Your task to perform on an android device: turn notification dots off Image 0: 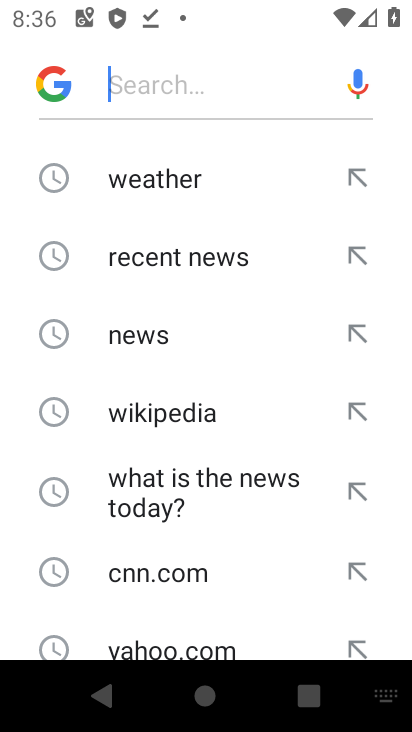
Step 0: press back button
Your task to perform on an android device: turn notification dots off Image 1: 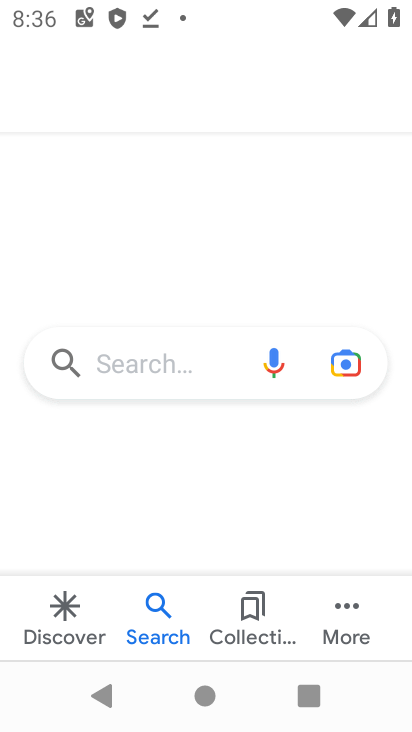
Step 1: press home button
Your task to perform on an android device: turn notification dots off Image 2: 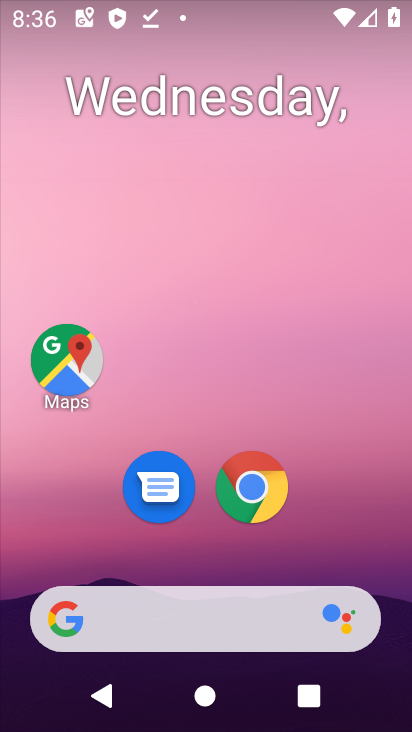
Step 2: drag from (230, 579) to (165, 273)
Your task to perform on an android device: turn notification dots off Image 3: 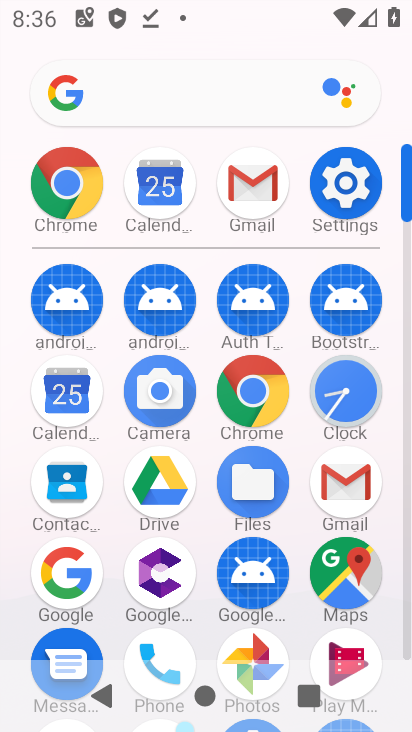
Step 3: click (342, 183)
Your task to perform on an android device: turn notification dots off Image 4: 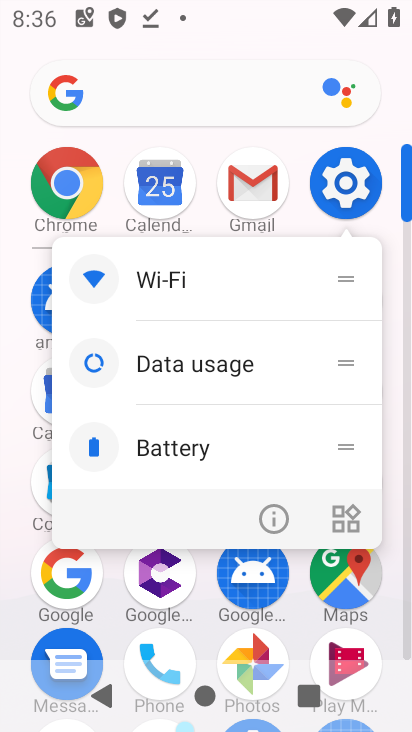
Step 4: click (340, 188)
Your task to perform on an android device: turn notification dots off Image 5: 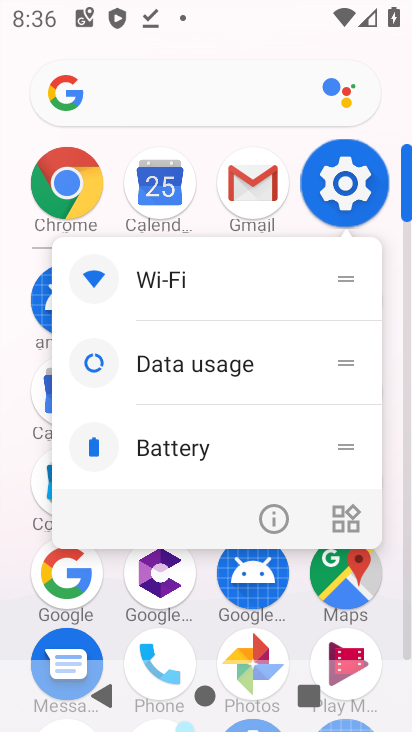
Step 5: click (340, 188)
Your task to perform on an android device: turn notification dots off Image 6: 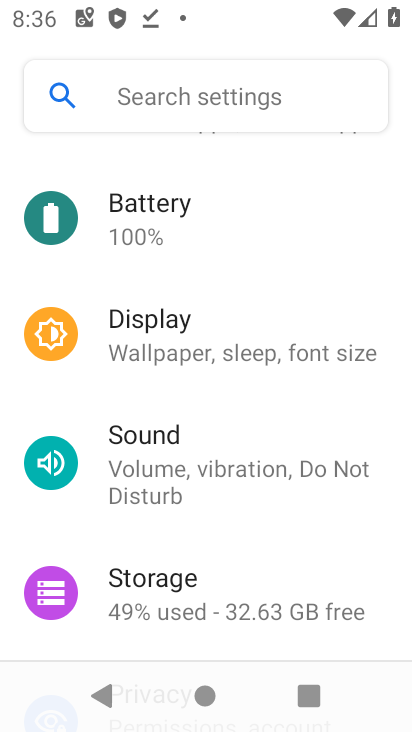
Step 6: drag from (172, 472) to (246, 276)
Your task to perform on an android device: turn notification dots off Image 7: 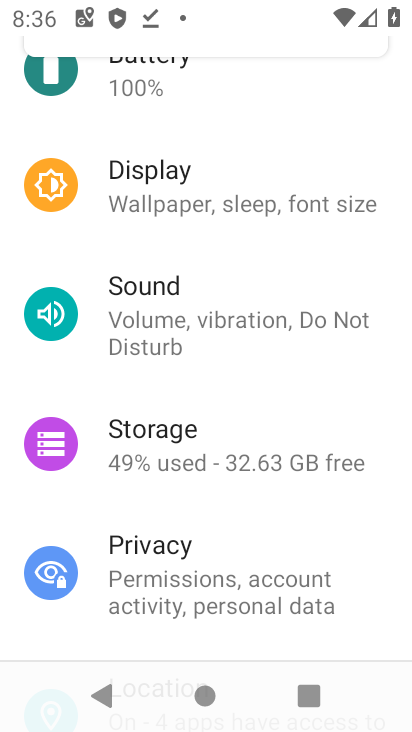
Step 7: drag from (151, 543) to (187, 545)
Your task to perform on an android device: turn notification dots off Image 8: 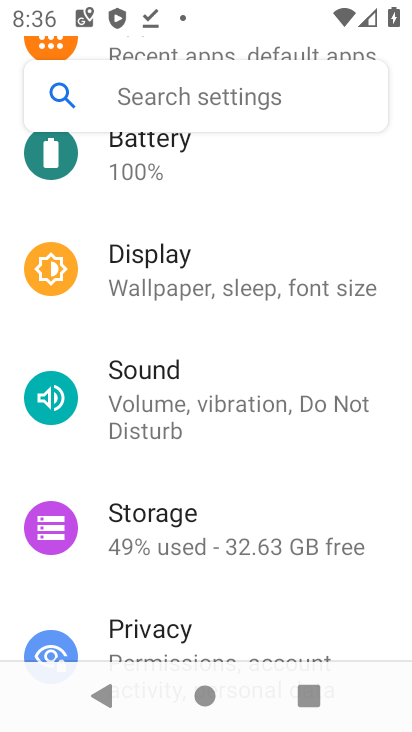
Step 8: drag from (237, 238) to (241, 544)
Your task to perform on an android device: turn notification dots off Image 9: 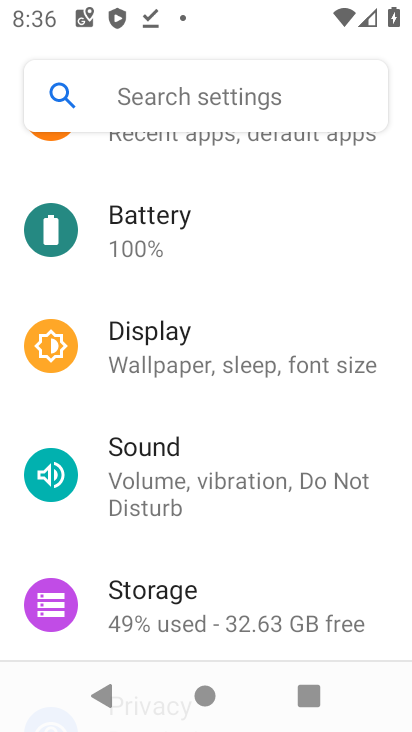
Step 9: drag from (170, 261) to (143, 621)
Your task to perform on an android device: turn notification dots off Image 10: 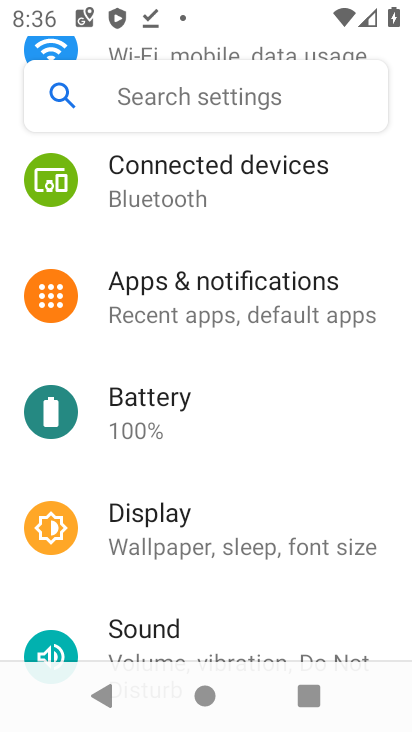
Step 10: drag from (142, 374) to (56, 705)
Your task to perform on an android device: turn notification dots off Image 11: 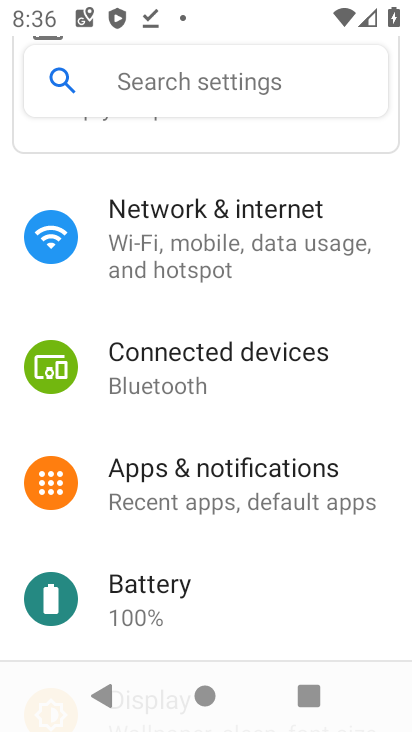
Step 11: click (224, 490)
Your task to perform on an android device: turn notification dots off Image 12: 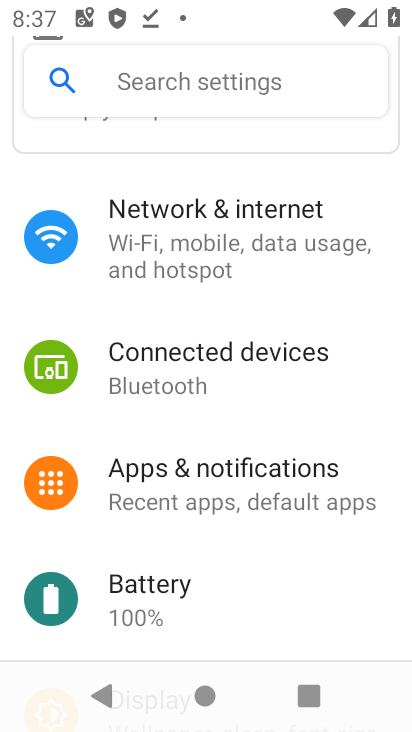
Step 12: click (224, 490)
Your task to perform on an android device: turn notification dots off Image 13: 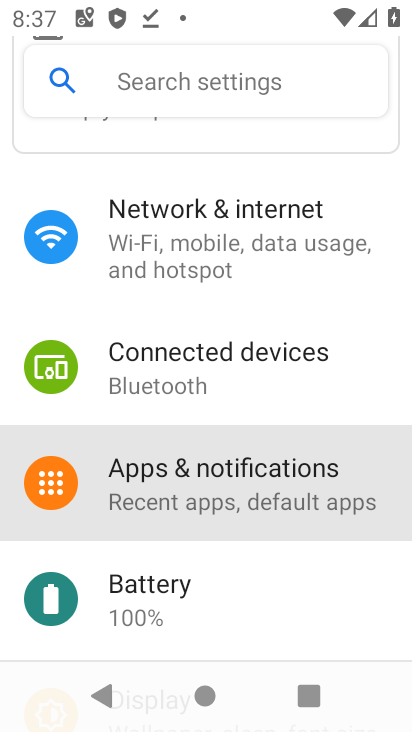
Step 13: click (225, 491)
Your task to perform on an android device: turn notification dots off Image 14: 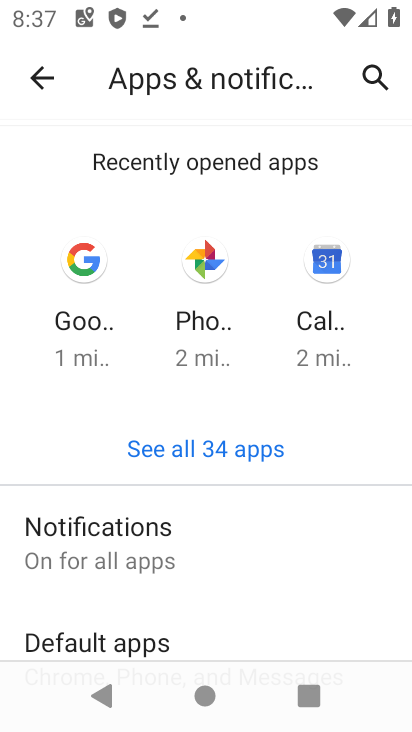
Step 14: click (128, 529)
Your task to perform on an android device: turn notification dots off Image 15: 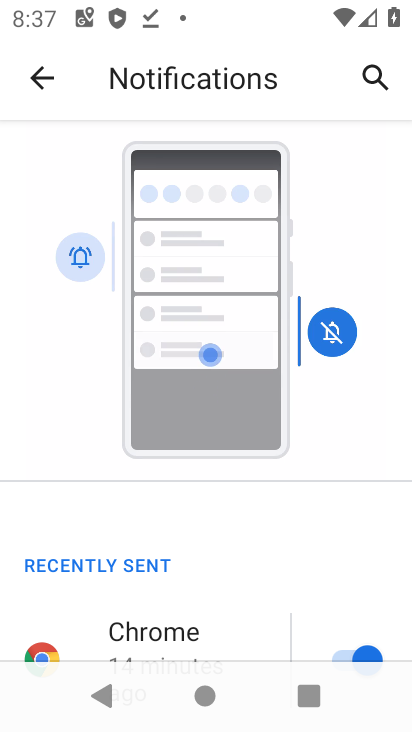
Step 15: drag from (254, 610) to (232, 137)
Your task to perform on an android device: turn notification dots off Image 16: 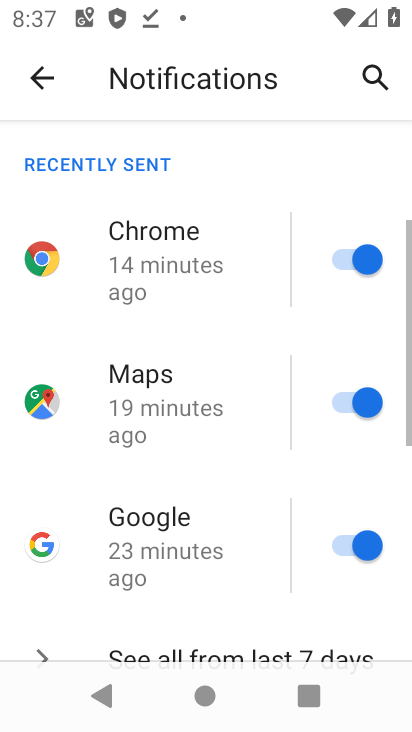
Step 16: drag from (210, 407) to (226, 39)
Your task to perform on an android device: turn notification dots off Image 17: 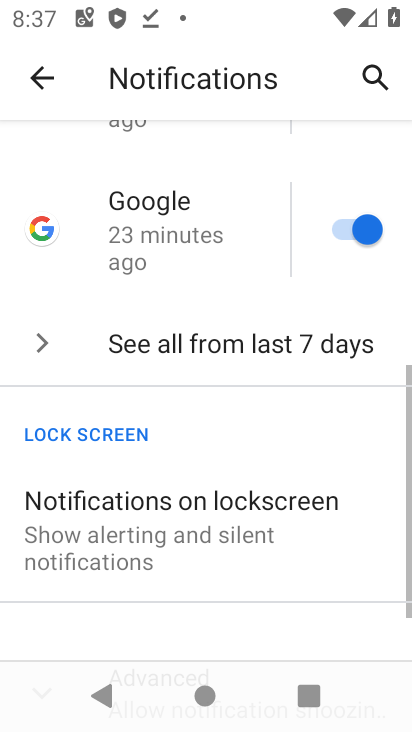
Step 17: drag from (203, 397) to (177, 174)
Your task to perform on an android device: turn notification dots off Image 18: 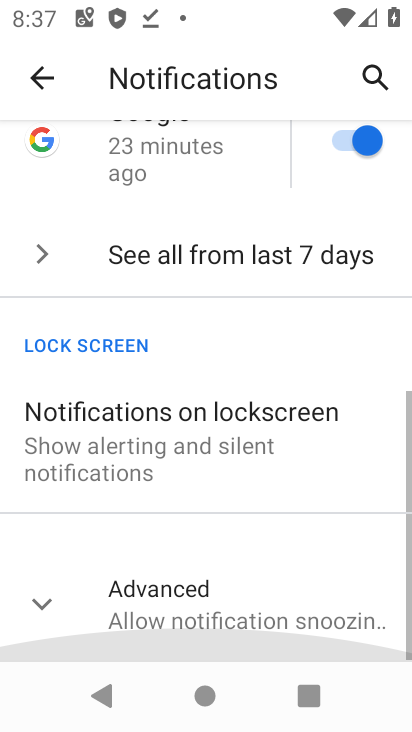
Step 18: drag from (185, 398) to (171, 302)
Your task to perform on an android device: turn notification dots off Image 19: 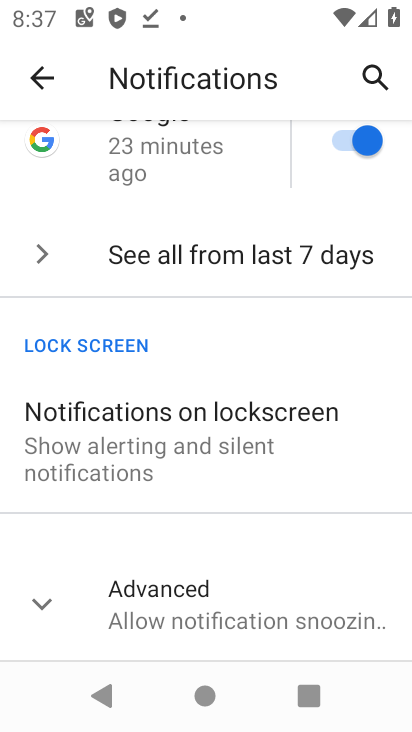
Step 19: click (187, 609)
Your task to perform on an android device: turn notification dots off Image 20: 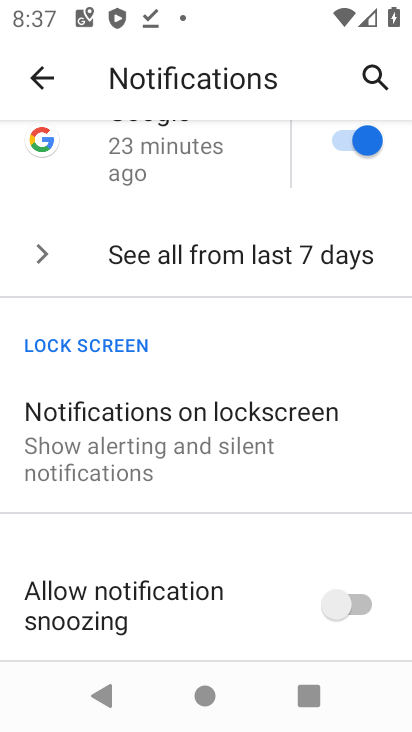
Step 20: drag from (173, 267) to (168, 207)
Your task to perform on an android device: turn notification dots off Image 21: 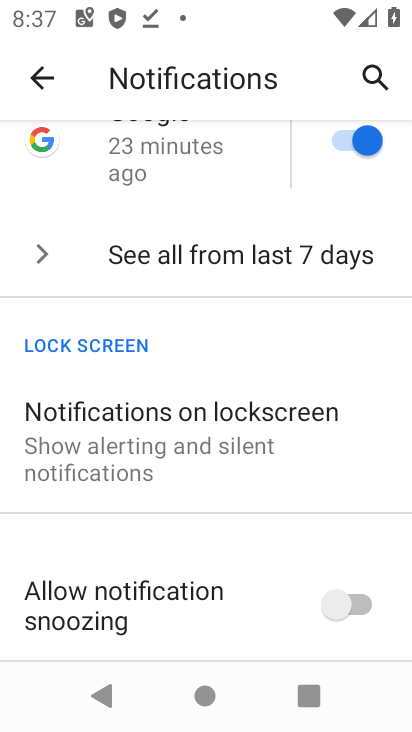
Step 21: drag from (238, 298) to (244, 238)
Your task to perform on an android device: turn notification dots off Image 22: 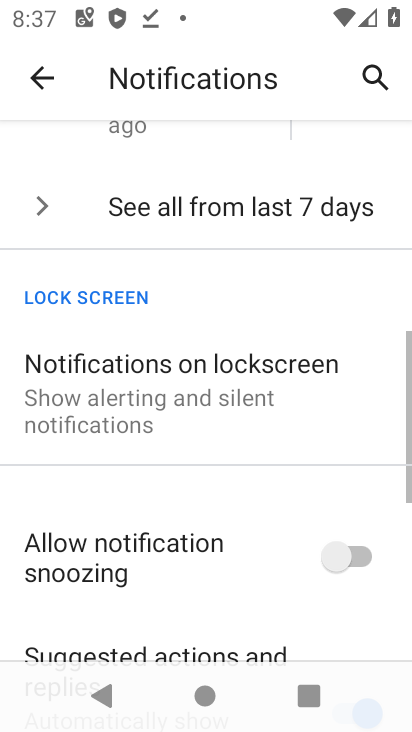
Step 22: drag from (311, 500) to (306, 210)
Your task to perform on an android device: turn notification dots off Image 23: 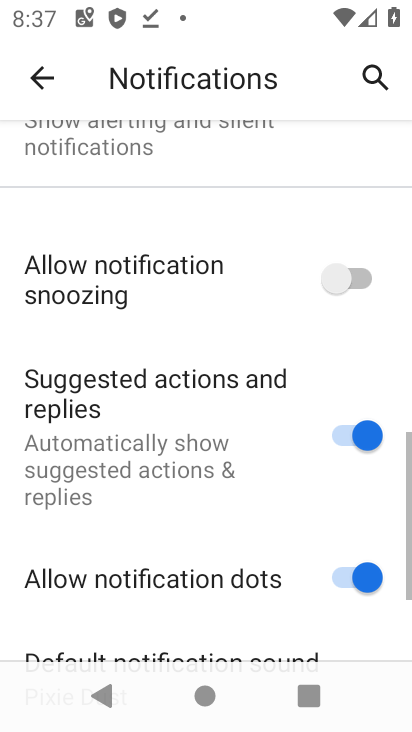
Step 23: drag from (310, 437) to (306, 253)
Your task to perform on an android device: turn notification dots off Image 24: 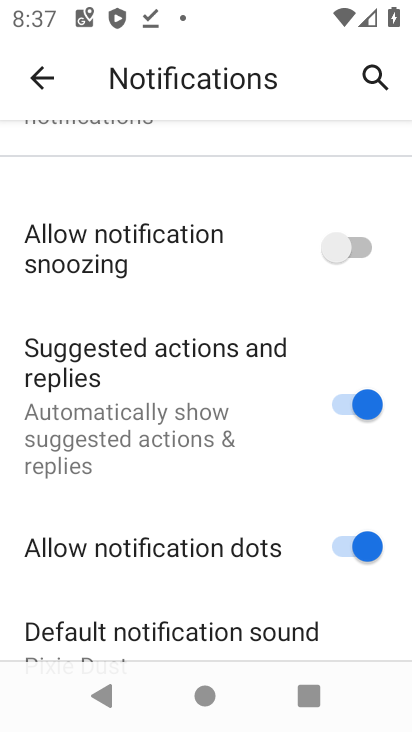
Step 24: click (363, 539)
Your task to perform on an android device: turn notification dots off Image 25: 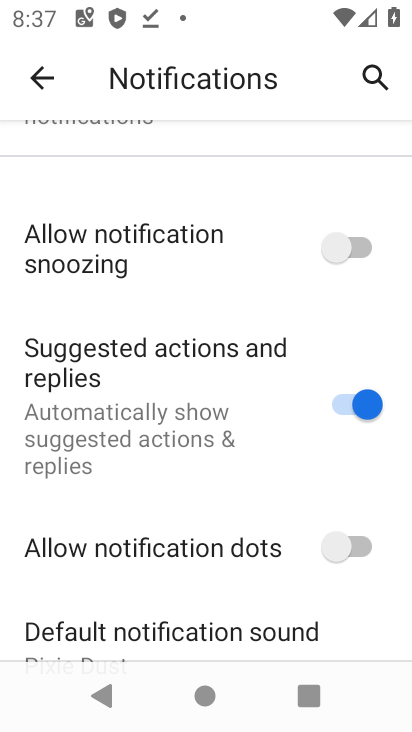
Step 25: task complete